Your task to perform on an android device: toggle sleep mode Image 0: 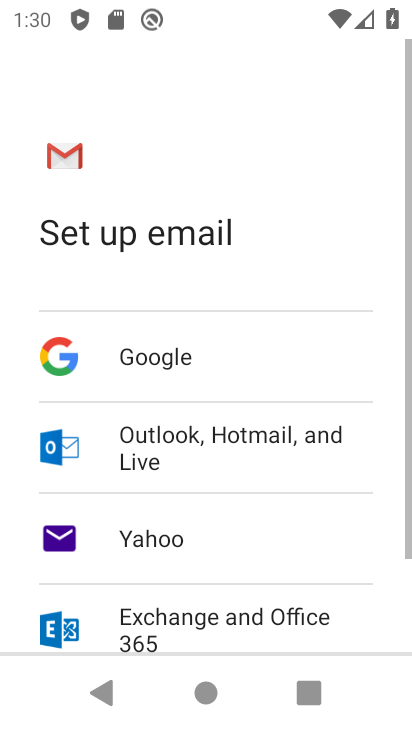
Step 0: press home button
Your task to perform on an android device: toggle sleep mode Image 1: 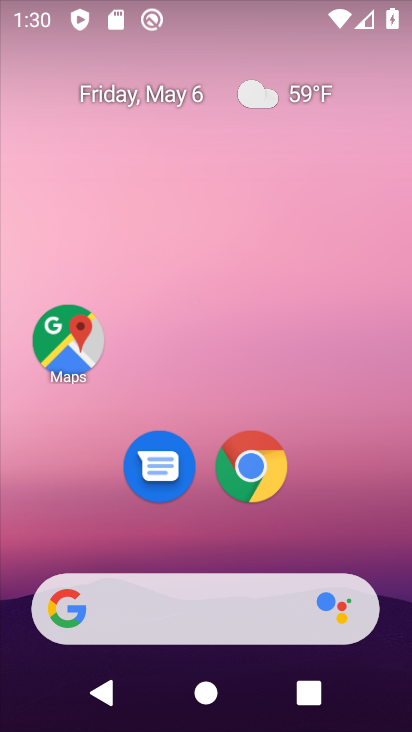
Step 1: drag from (198, 534) to (199, 79)
Your task to perform on an android device: toggle sleep mode Image 2: 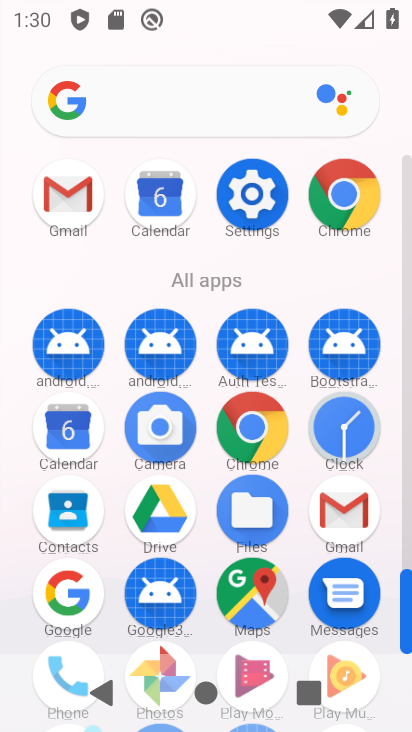
Step 2: click (250, 195)
Your task to perform on an android device: toggle sleep mode Image 3: 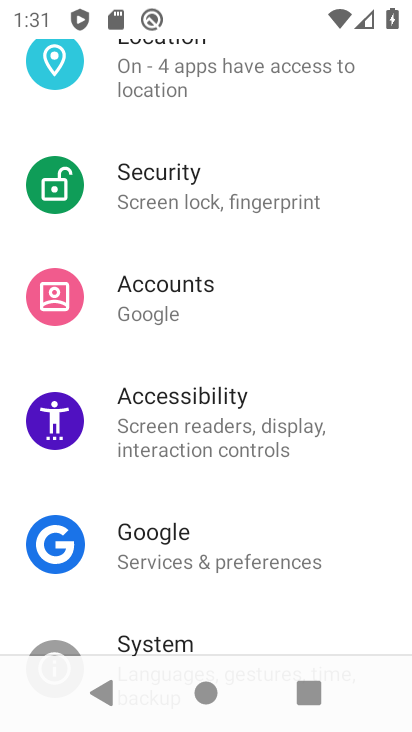
Step 3: drag from (179, 122) to (148, 685)
Your task to perform on an android device: toggle sleep mode Image 4: 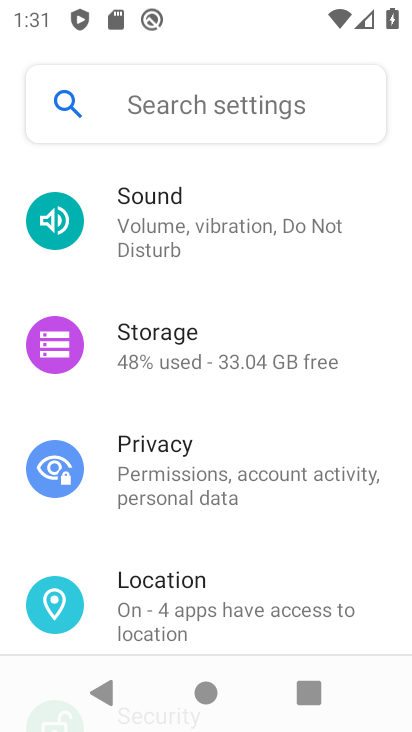
Step 4: drag from (156, 220) to (144, 572)
Your task to perform on an android device: toggle sleep mode Image 5: 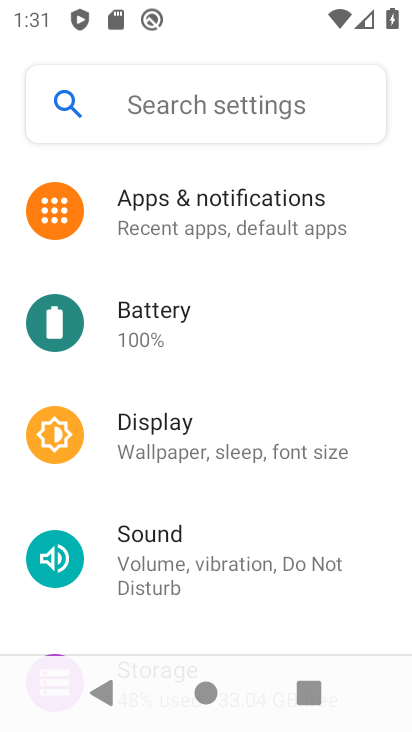
Step 5: click (106, 423)
Your task to perform on an android device: toggle sleep mode Image 6: 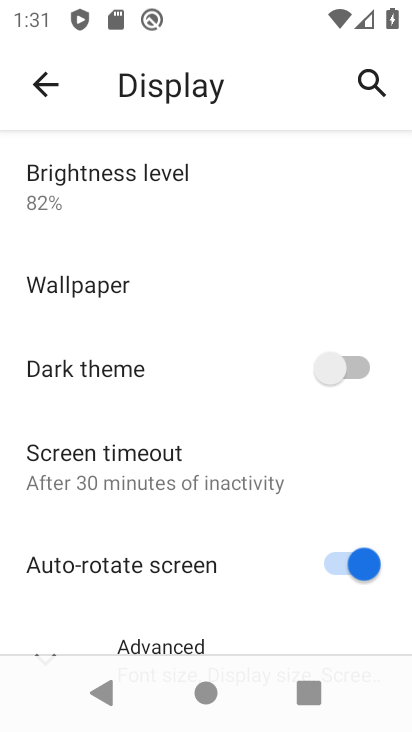
Step 6: task complete